Your task to perform on an android device: turn on data saver in the chrome app Image 0: 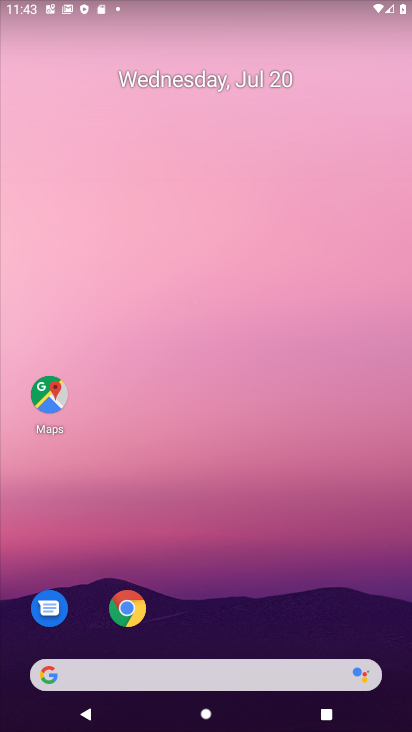
Step 0: press home button
Your task to perform on an android device: turn on data saver in the chrome app Image 1: 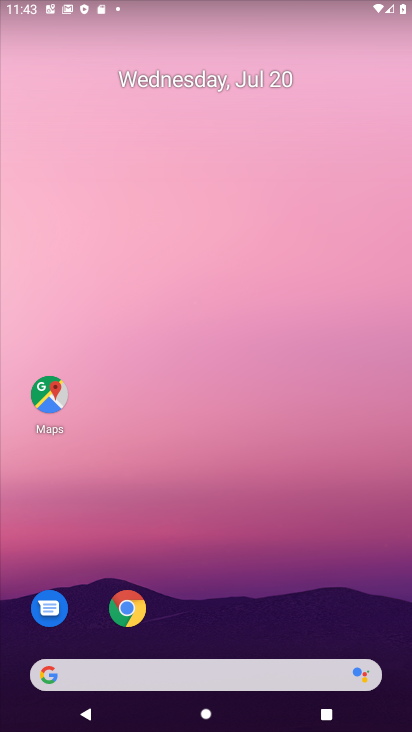
Step 1: click (134, 604)
Your task to perform on an android device: turn on data saver in the chrome app Image 2: 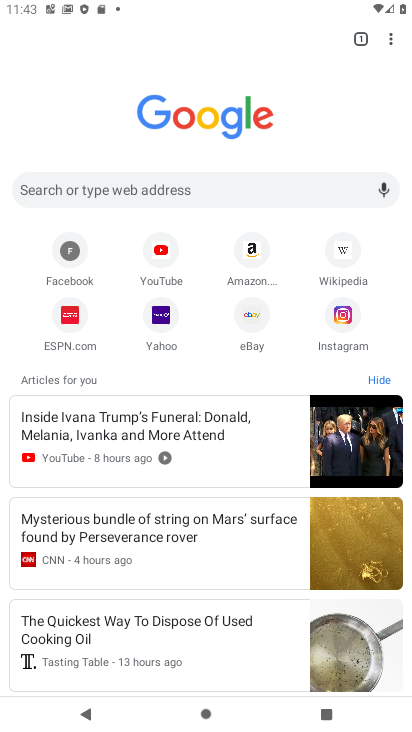
Step 2: click (387, 37)
Your task to perform on an android device: turn on data saver in the chrome app Image 3: 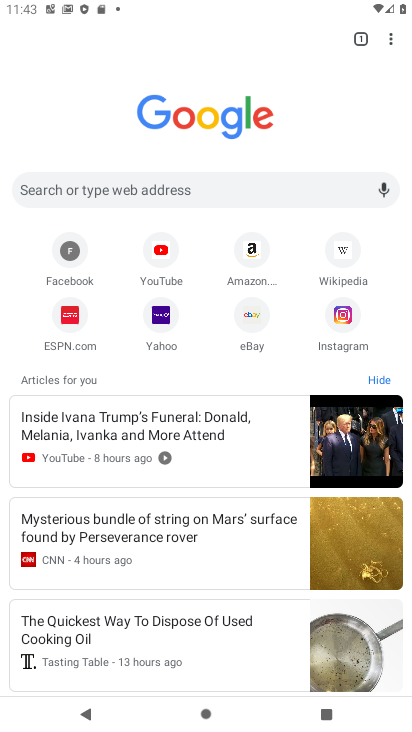
Step 3: drag from (387, 37) to (264, 333)
Your task to perform on an android device: turn on data saver in the chrome app Image 4: 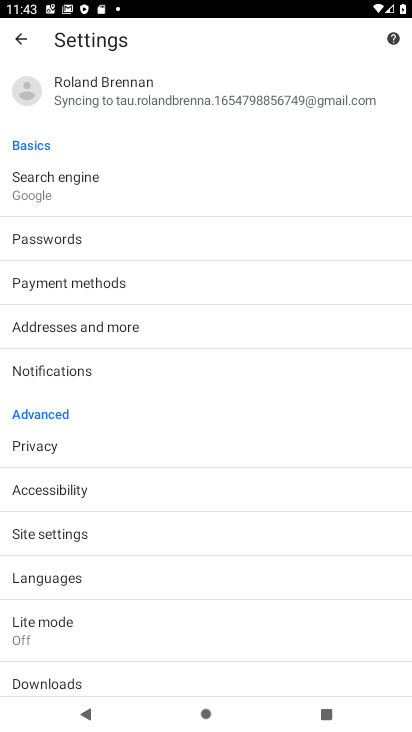
Step 4: click (41, 637)
Your task to perform on an android device: turn on data saver in the chrome app Image 5: 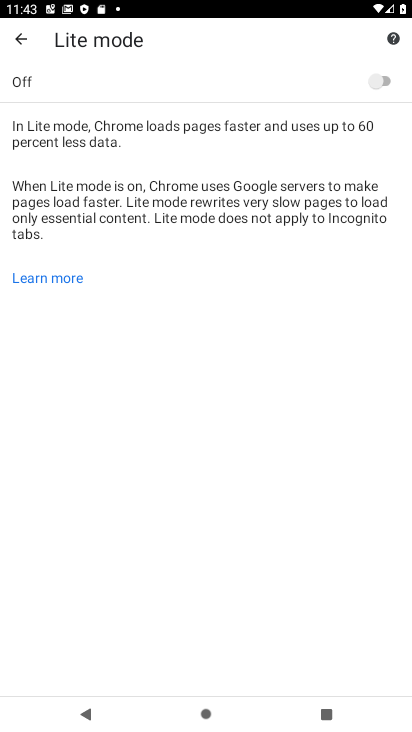
Step 5: click (379, 78)
Your task to perform on an android device: turn on data saver in the chrome app Image 6: 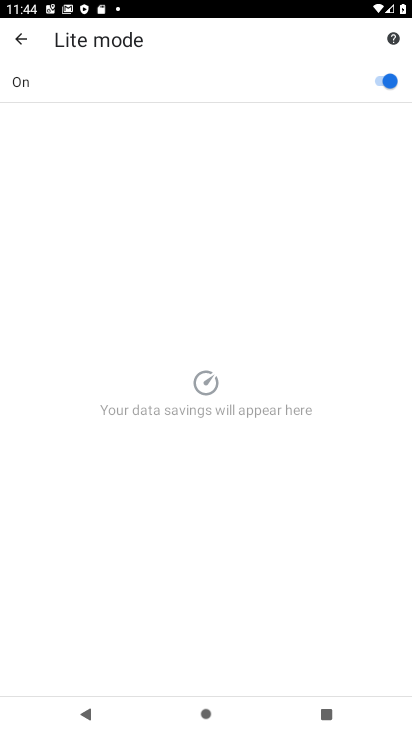
Step 6: task complete